Your task to perform on an android device: Open the map Image 0: 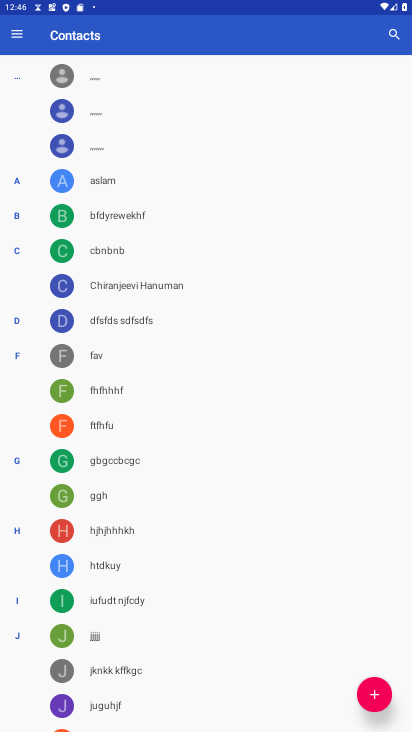
Step 0: press home button
Your task to perform on an android device: Open the map Image 1: 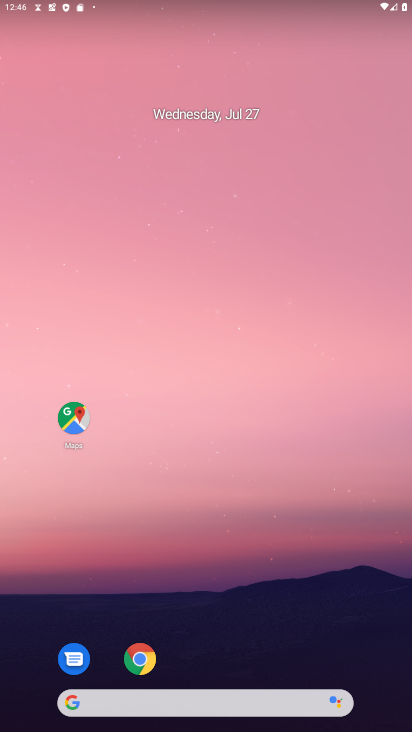
Step 1: click (70, 413)
Your task to perform on an android device: Open the map Image 2: 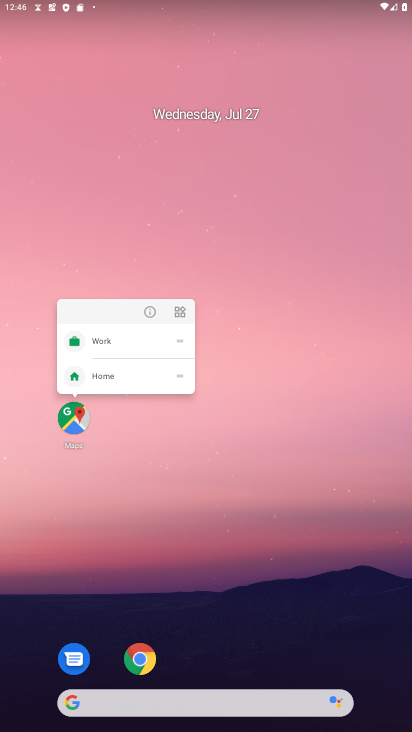
Step 2: click (71, 413)
Your task to perform on an android device: Open the map Image 3: 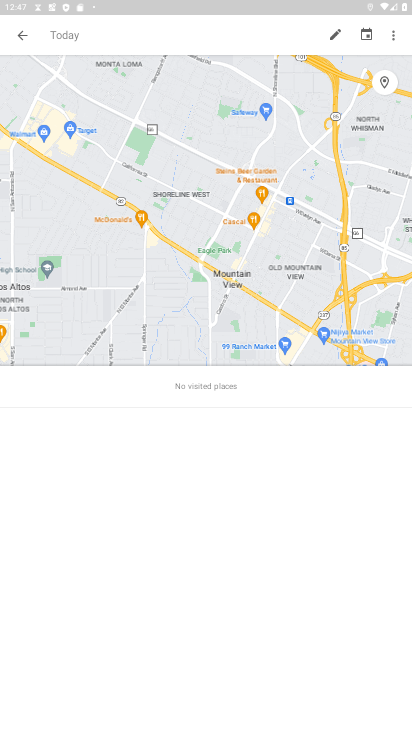
Step 3: click (19, 40)
Your task to perform on an android device: Open the map Image 4: 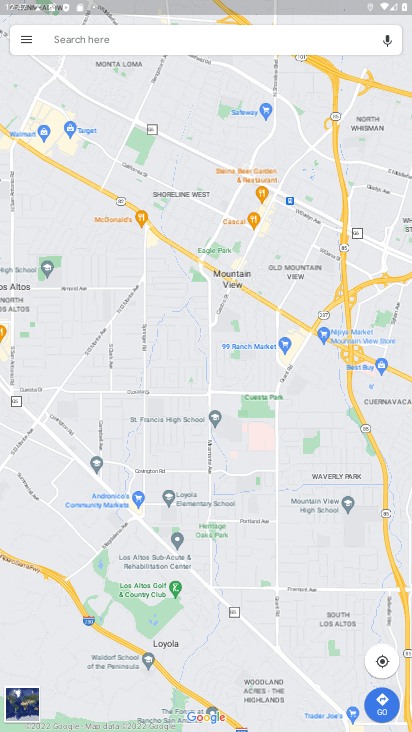
Step 4: task complete